Your task to perform on an android device: Show me popular games on the Play Store Image 0: 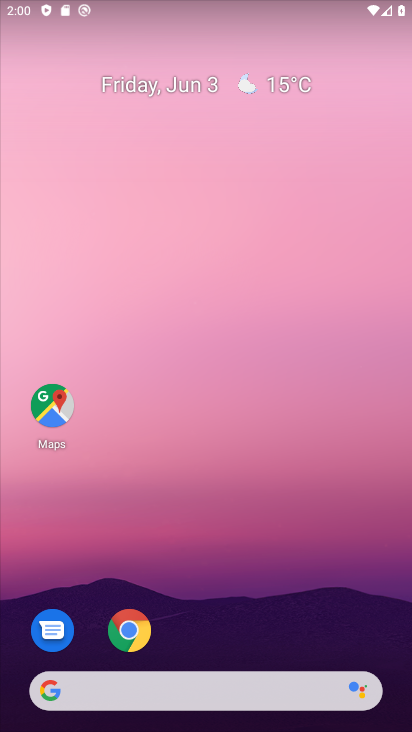
Step 0: press home button
Your task to perform on an android device: Show me popular games on the Play Store Image 1: 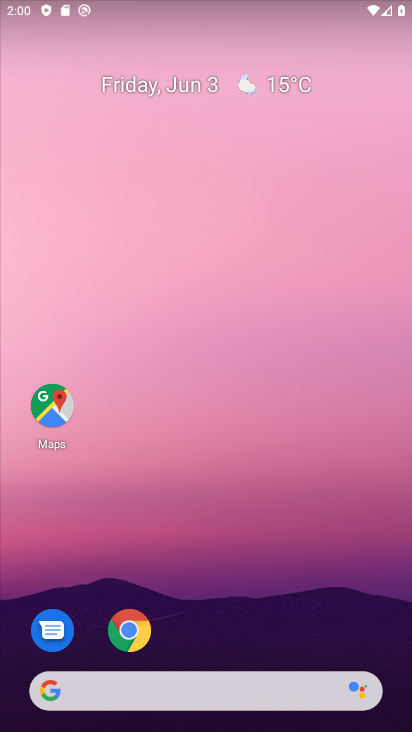
Step 1: drag from (309, 636) to (293, 29)
Your task to perform on an android device: Show me popular games on the Play Store Image 2: 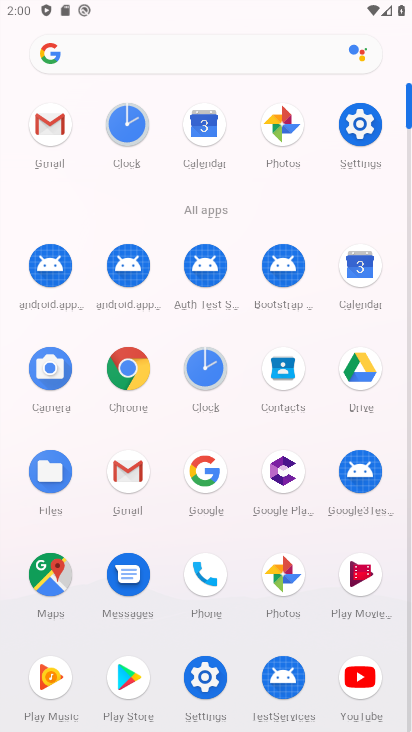
Step 2: click (125, 687)
Your task to perform on an android device: Show me popular games on the Play Store Image 3: 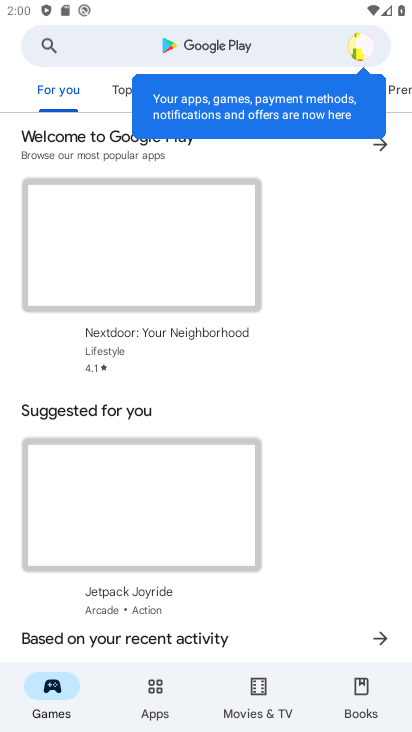
Step 3: click (203, 48)
Your task to perform on an android device: Show me popular games on the Play Store Image 4: 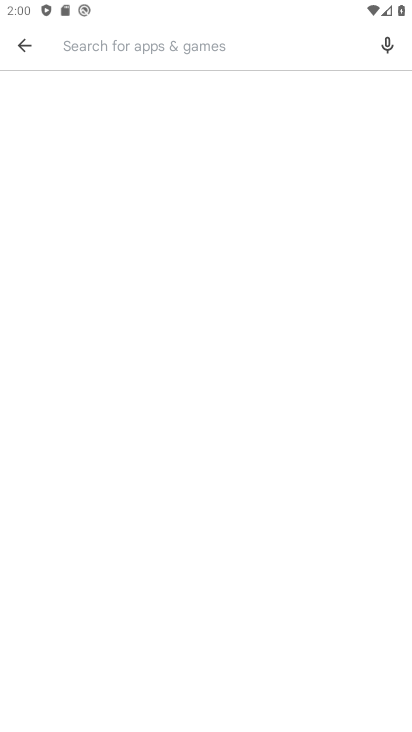
Step 4: click (203, 48)
Your task to perform on an android device: Show me popular games on the Play Store Image 5: 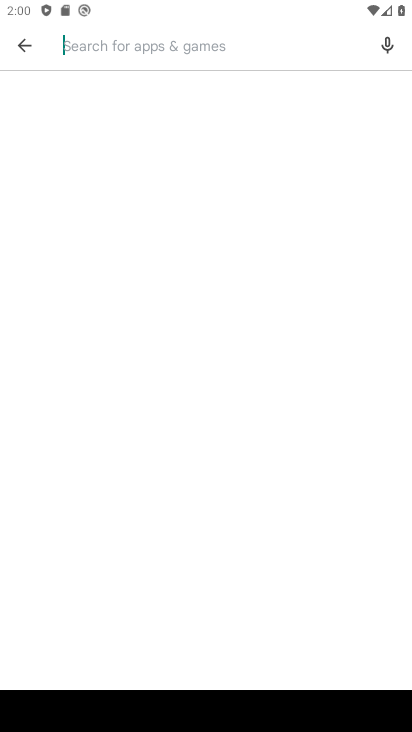
Step 5: type " popular games "
Your task to perform on an android device: Show me popular games on the Play Store Image 6: 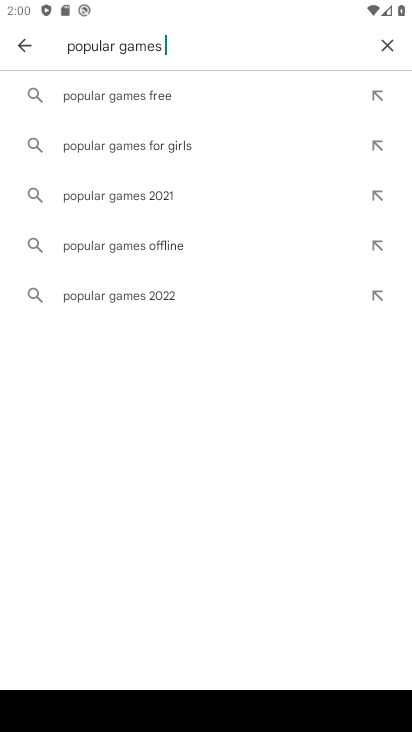
Step 6: click (77, 102)
Your task to perform on an android device: Show me popular games on the Play Store Image 7: 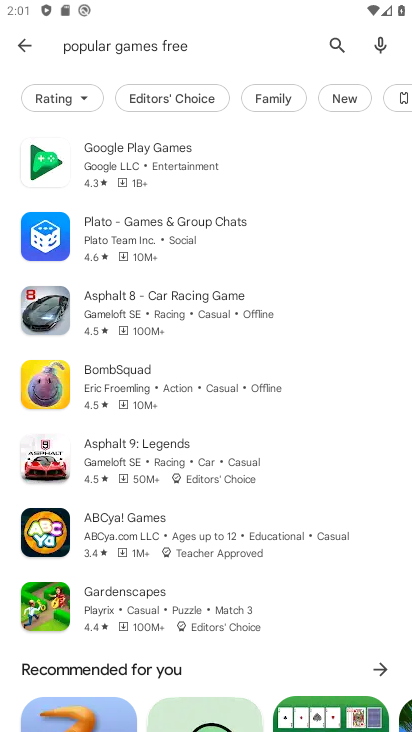
Step 7: task complete